Your task to perform on an android device: set the timer Image 0: 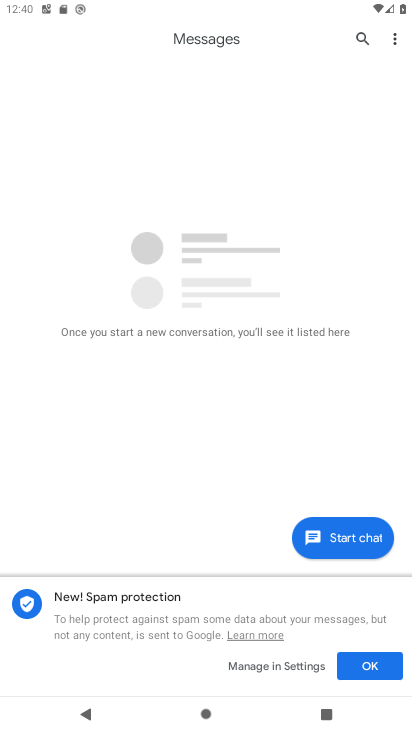
Step 0: press home button
Your task to perform on an android device: set the timer Image 1: 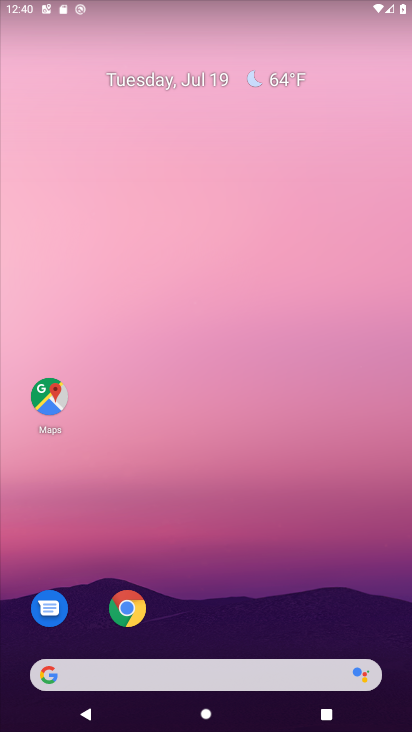
Step 1: drag from (259, 559) to (303, 167)
Your task to perform on an android device: set the timer Image 2: 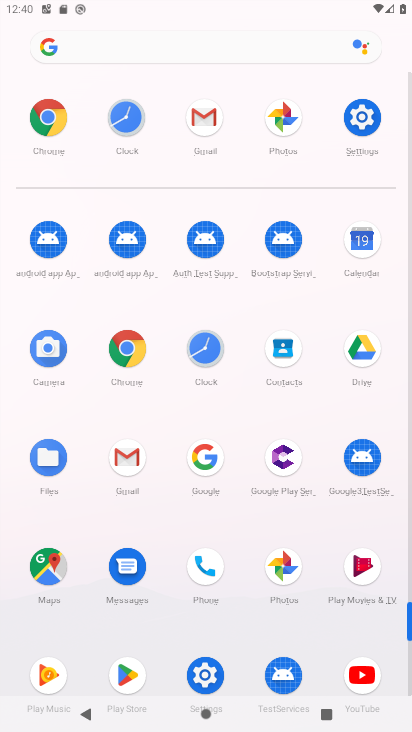
Step 2: click (213, 358)
Your task to perform on an android device: set the timer Image 3: 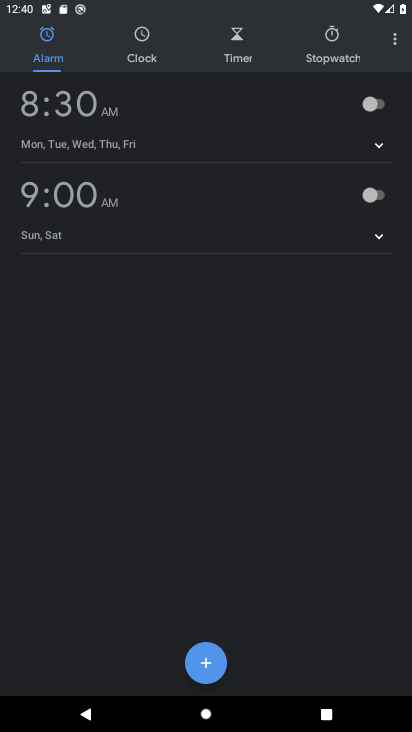
Step 3: click (241, 48)
Your task to perform on an android device: set the timer Image 4: 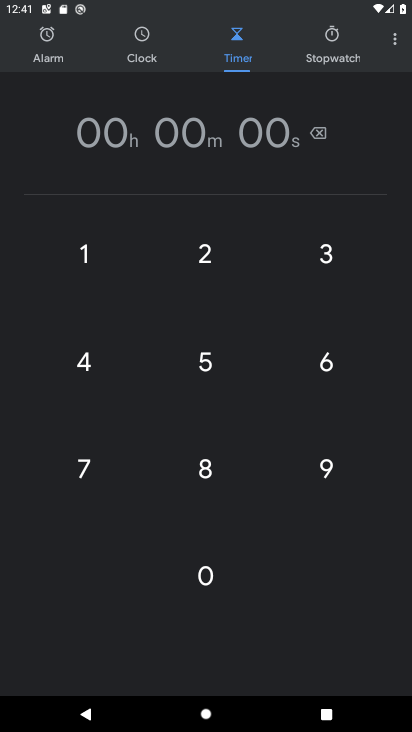
Step 4: click (196, 371)
Your task to perform on an android device: set the timer Image 5: 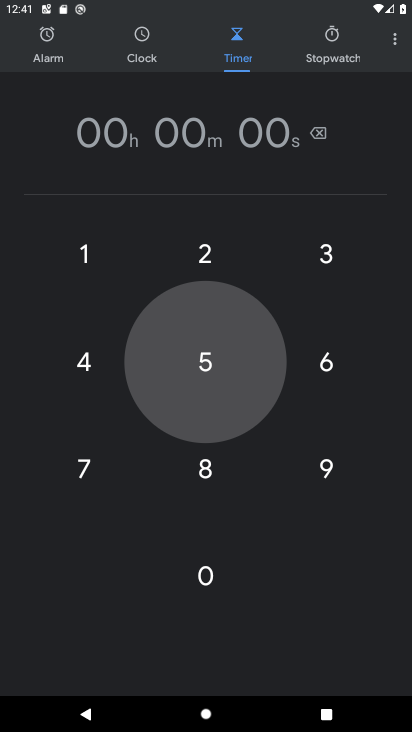
Step 5: click (196, 371)
Your task to perform on an android device: set the timer Image 6: 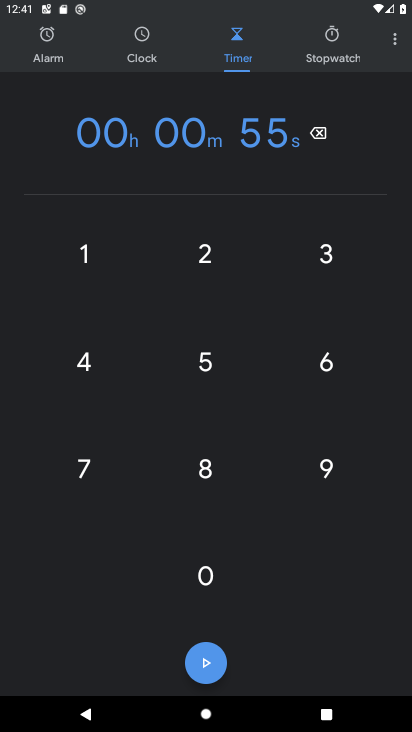
Step 6: click (196, 371)
Your task to perform on an android device: set the timer Image 7: 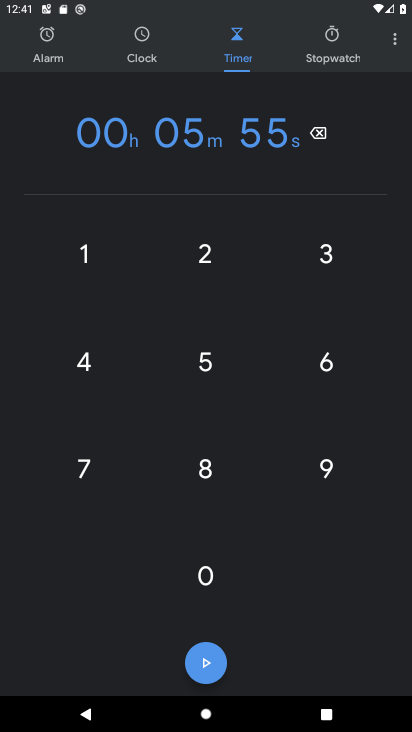
Step 7: click (213, 684)
Your task to perform on an android device: set the timer Image 8: 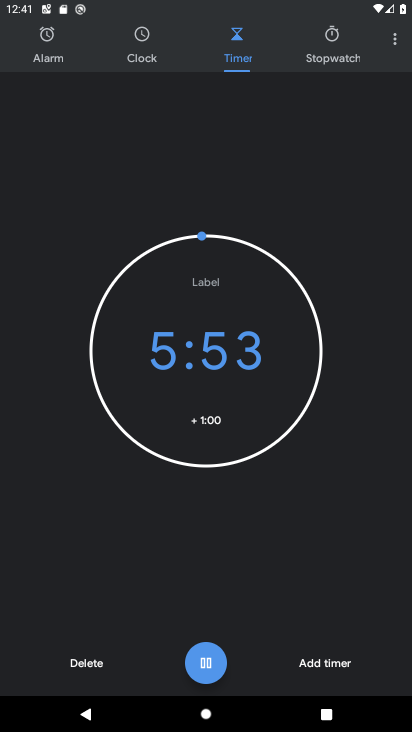
Step 8: task complete